Your task to perform on an android device: turn off picture-in-picture Image 0: 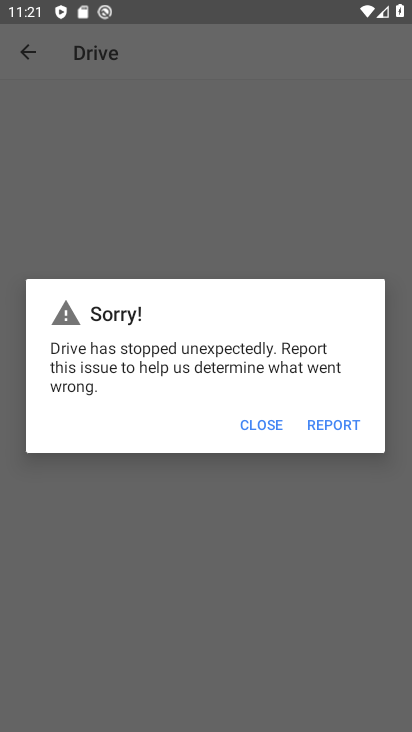
Step 0: press home button
Your task to perform on an android device: turn off picture-in-picture Image 1: 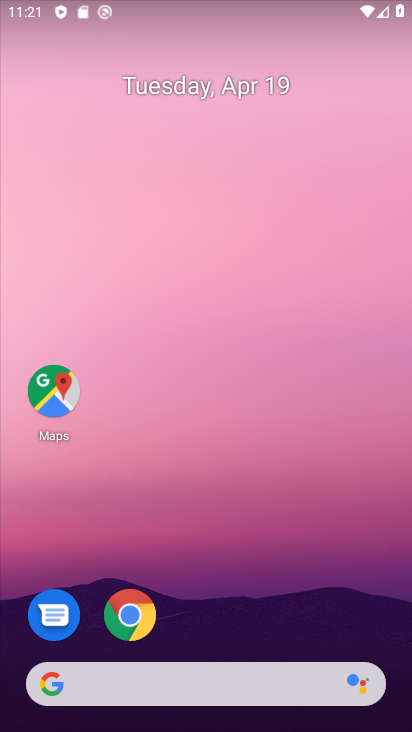
Step 1: drag from (196, 342) to (200, 21)
Your task to perform on an android device: turn off picture-in-picture Image 2: 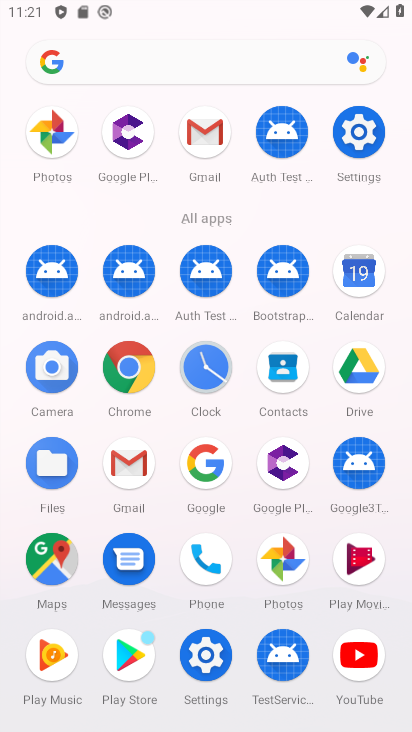
Step 2: click (373, 141)
Your task to perform on an android device: turn off picture-in-picture Image 3: 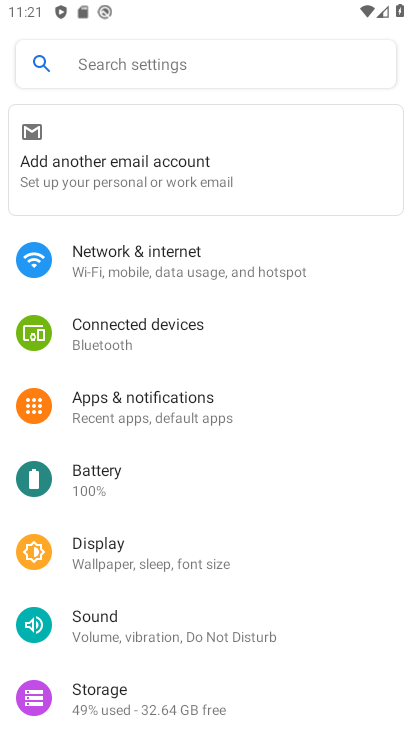
Step 3: click (187, 408)
Your task to perform on an android device: turn off picture-in-picture Image 4: 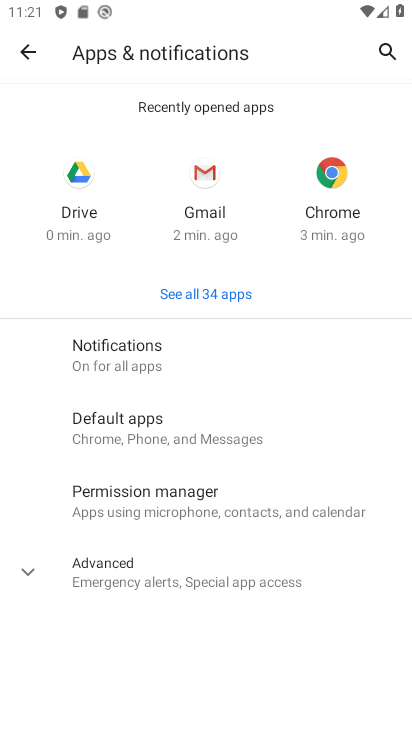
Step 4: click (146, 571)
Your task to perform on an android device: turn off picture-in-picture Image 5: 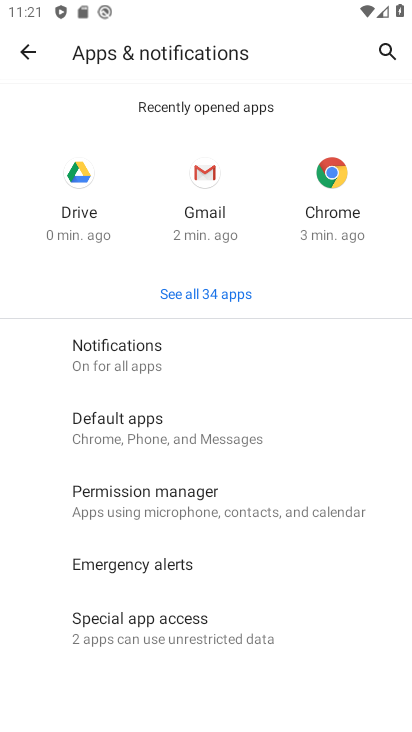
Step 5: click (147, 620)
Your task to perform on an android device: turn off picture-in-picture Image 6: 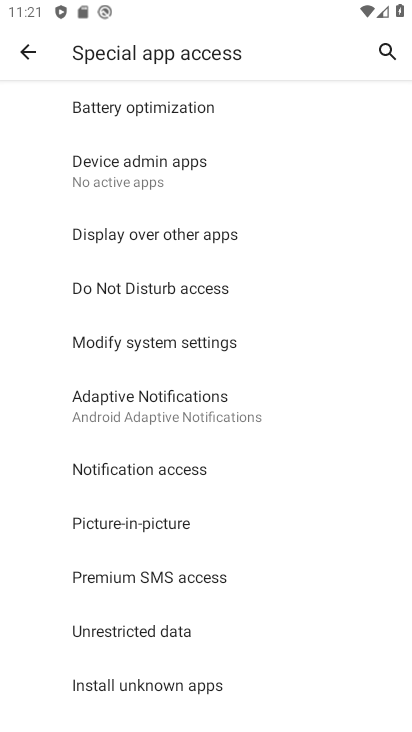
Step 6: click (196, 540)
Your task to perform on an android device: turn off picture-in-picture Image 7: 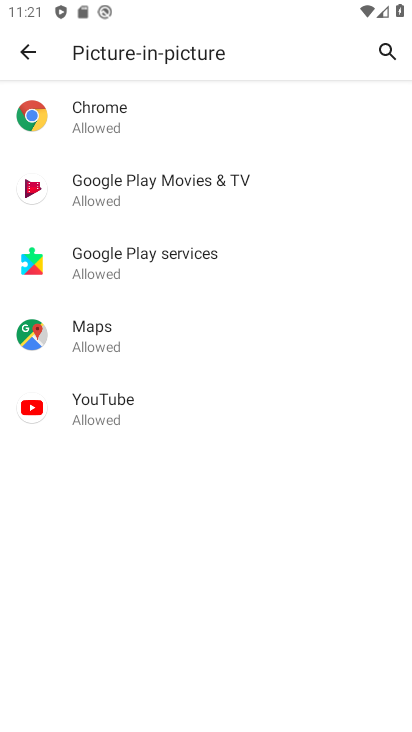
Step 7: click (151, 403)
Your task to perform on an android device: turn off picture-in-picture Image 8: 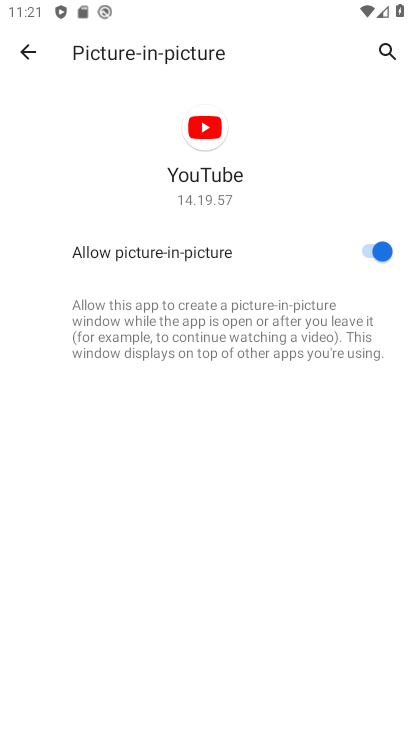
Step 8: click (368, 252)
Your task to perform on an android device: turn off picture-in-picture Image 9: 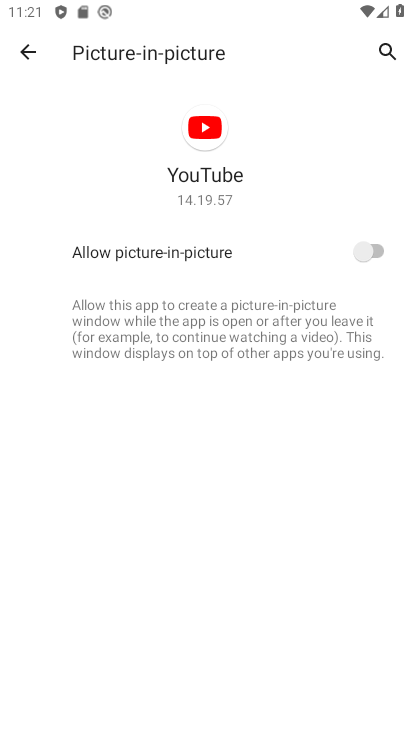
Step 9: task complete